Your task to perform on an android device: toggle show notifications on the lock screen Image 0: 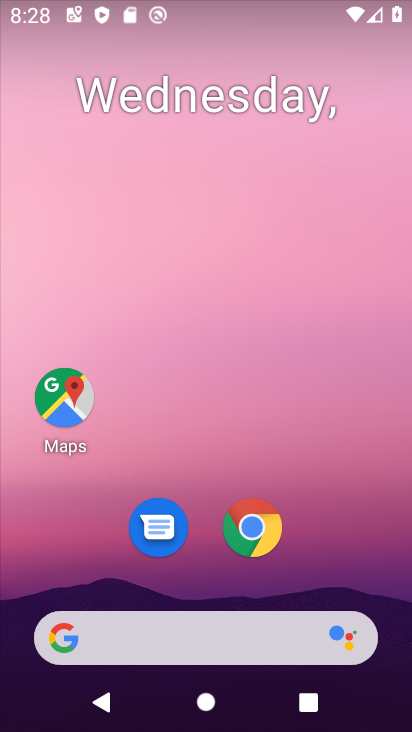
Step 0: drag from (307, 479) to (218, 132)
Your task to perform on an android device: toggle show notifications on the lock screen Image 1: 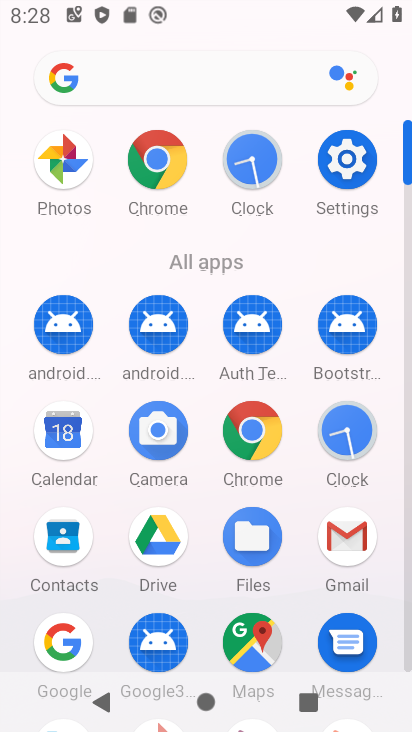
Step 1: click (353, 153)
Your task to perform on an android device: toggle show notifications on the lock screen Image 2: 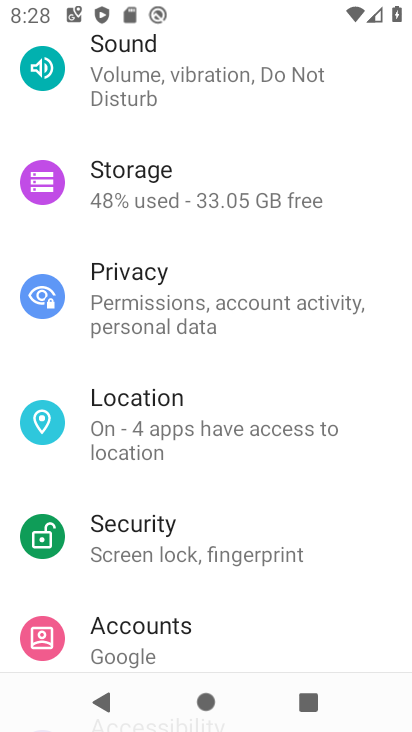
Step 2: drag from (196, 144) to (245, 648)
Your task to perform on an android device: toggle show notifications on the lock screen Image 3: 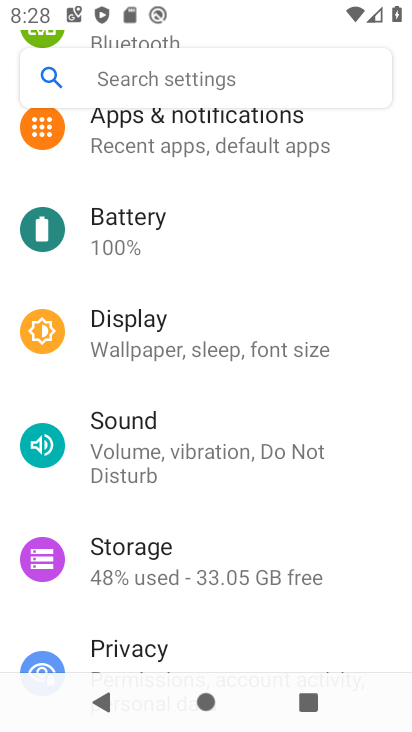
Step 3: click (191, 132)
Your task to perform on an android device: toggle show notifications on the lock screen Image 4: 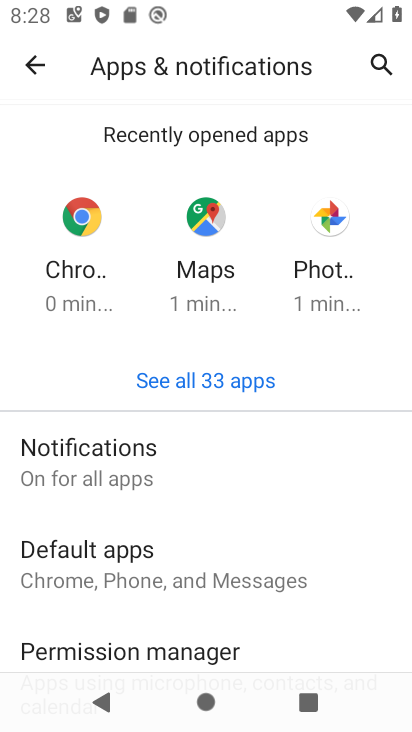
Step 4: click (156, 546)
Your task to perform on an android device: toggle show notifications on the lock screen Image 5: 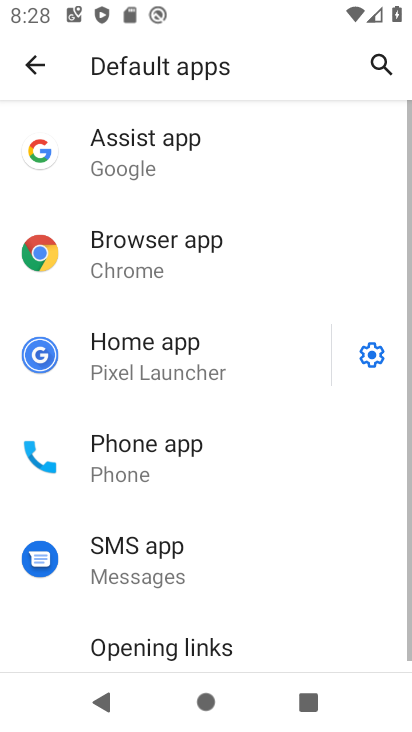
Step 5: click (42, 55)
Your task to perform on an android device: toggle show notifications on the lock screen Image 6: 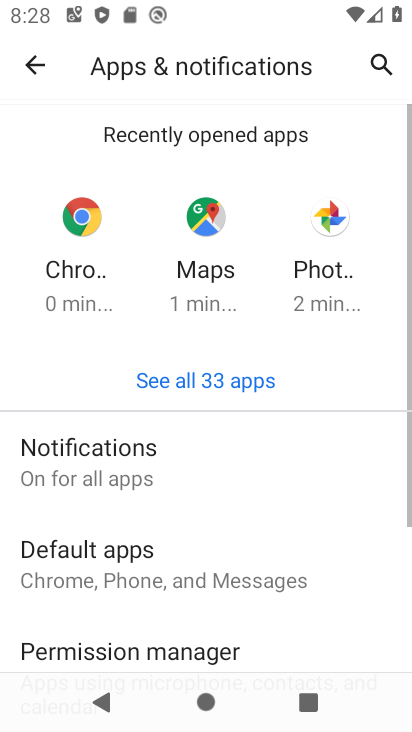
Step 6: click (136, 467)
Your task to perform on an android device: toggle show notifications on the lock screen Image 7: 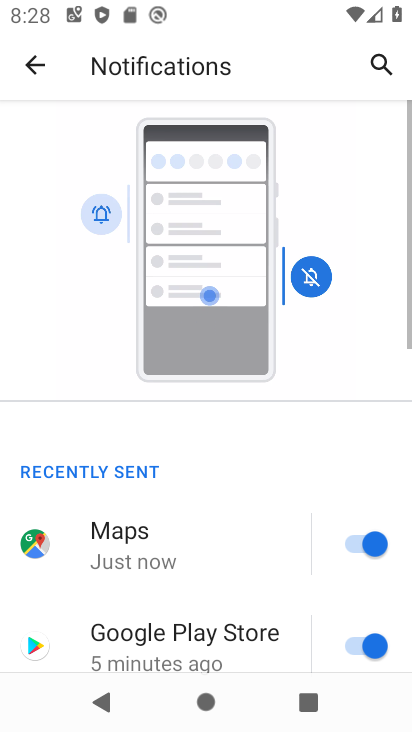
Step 7: drag from (253, 579) to (300, 104)
Your task to perform on an android device: toggle show notifications on the lock screen Image 8: 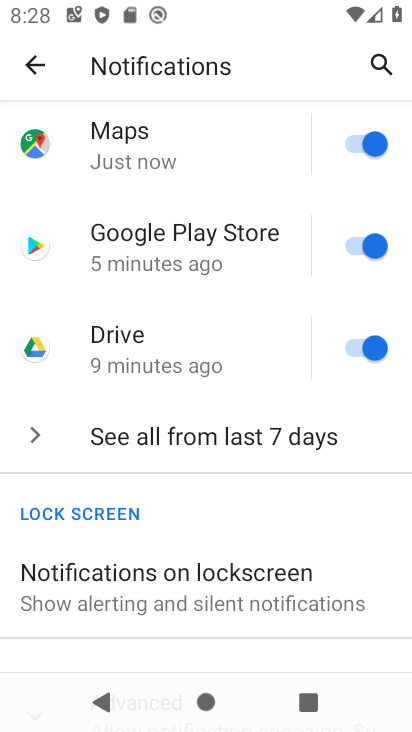
Step 8: click (261, 603)
Your task to perform on an android device: toggle show notifications on the lock screen Image 9: 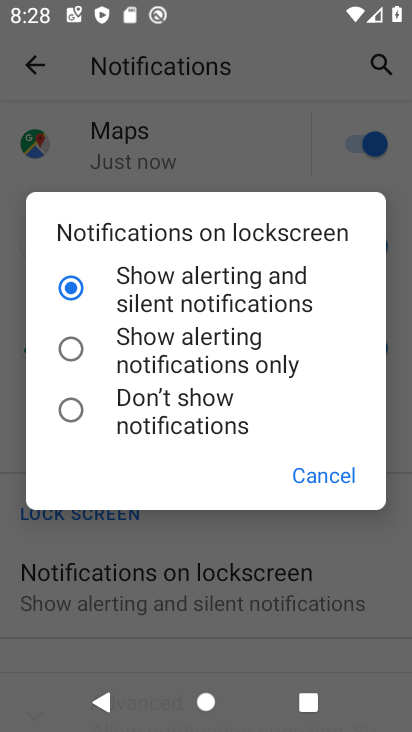
Step 9: click (205, 342)
Your task to perform on an android device: toggle show notifications on the lock screen Image 10: 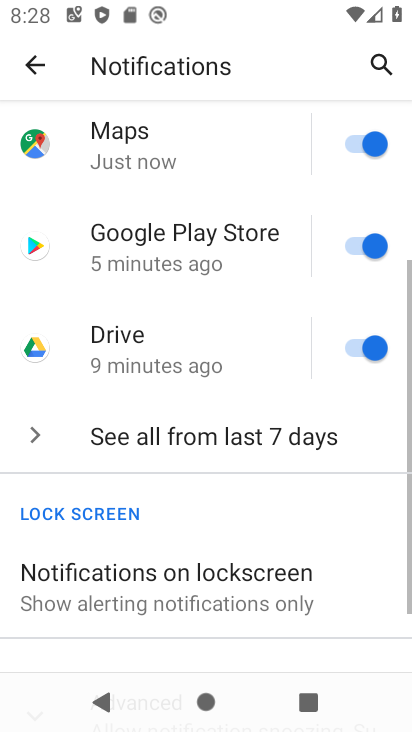
Step 10: task complete